Your task to perform on an android device: uninstall "Booking.com: Hotels and more" Image 0: 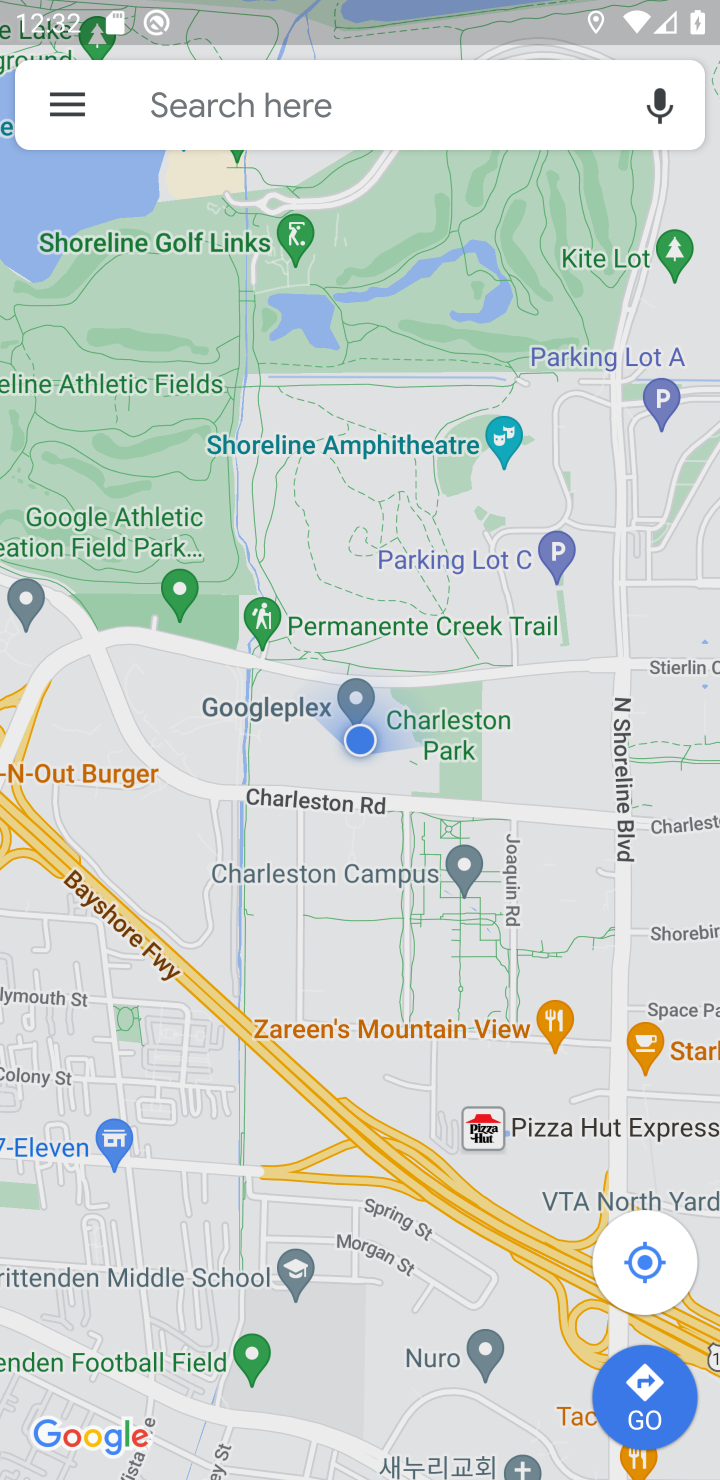
Step 0: press home button
Your task to perform on an android device: uninstall "Booking.com: Hotels and more" Image 1: 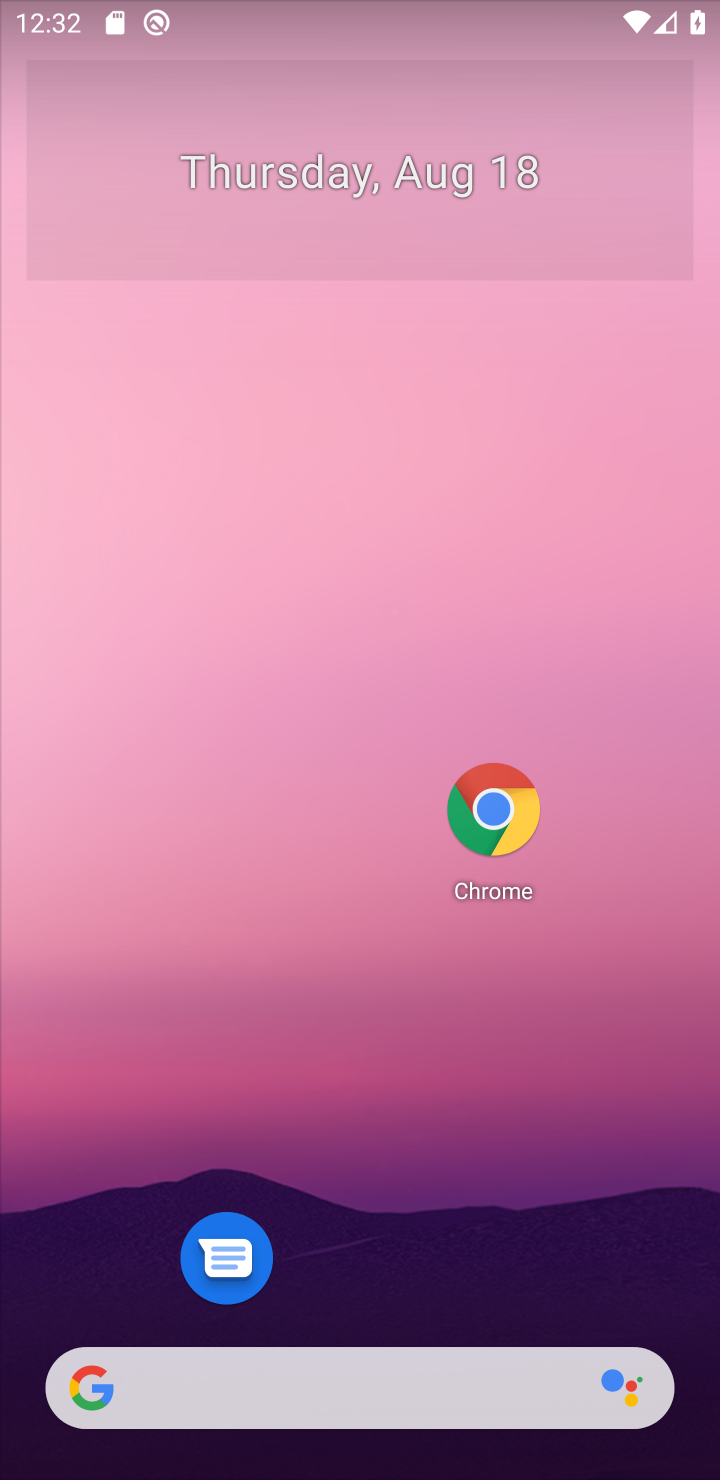
Step 1: drag from (339, 1112) to (399, 416)
Your task to perform on an android device: uninstall "Booking.com: Hotels and more" Image 2: 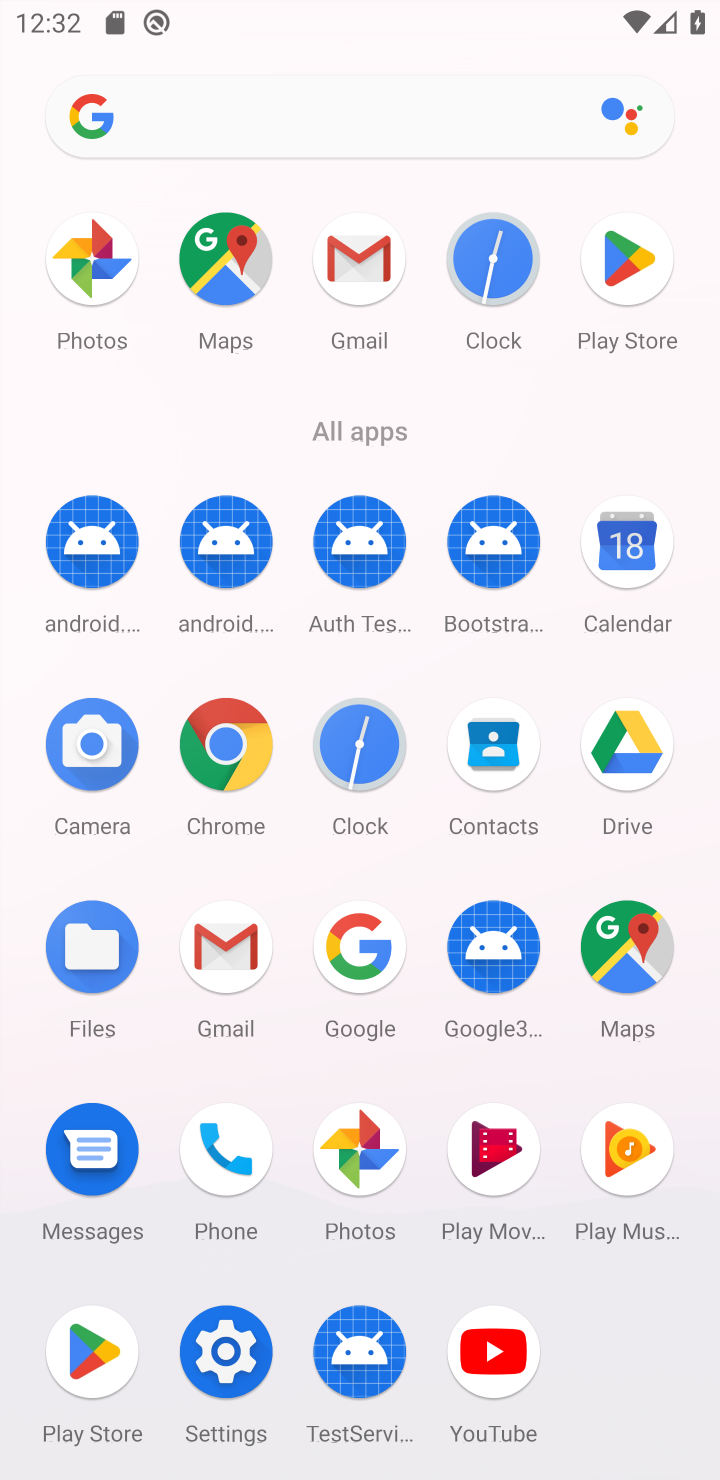
Step 2: click (614, 234)
Your task to perform on an android device: uninstall "Booking.com: Hotels and more" Image 3: 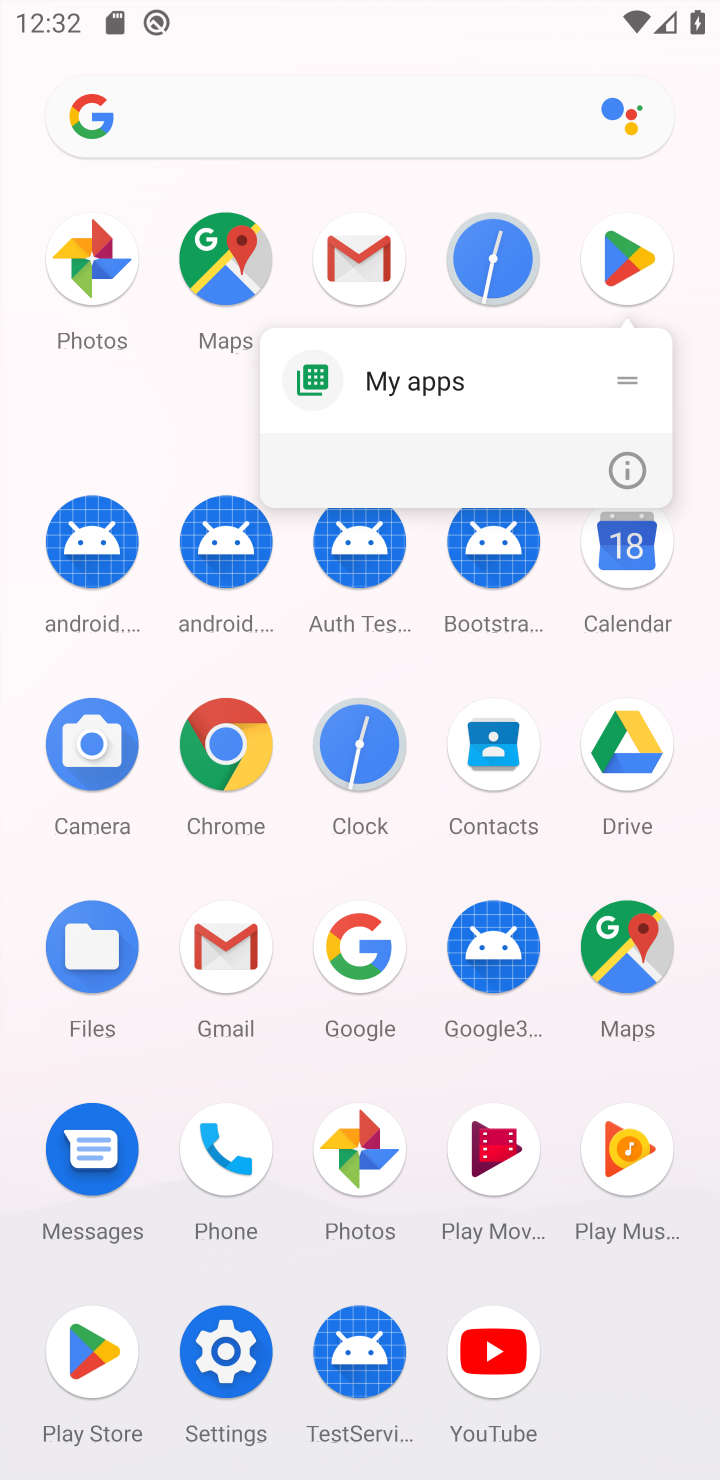
Step 3: click (605, 260)
Your task to perform on an android device: uninstall "Booking.com: Hotels and more" Image 4: 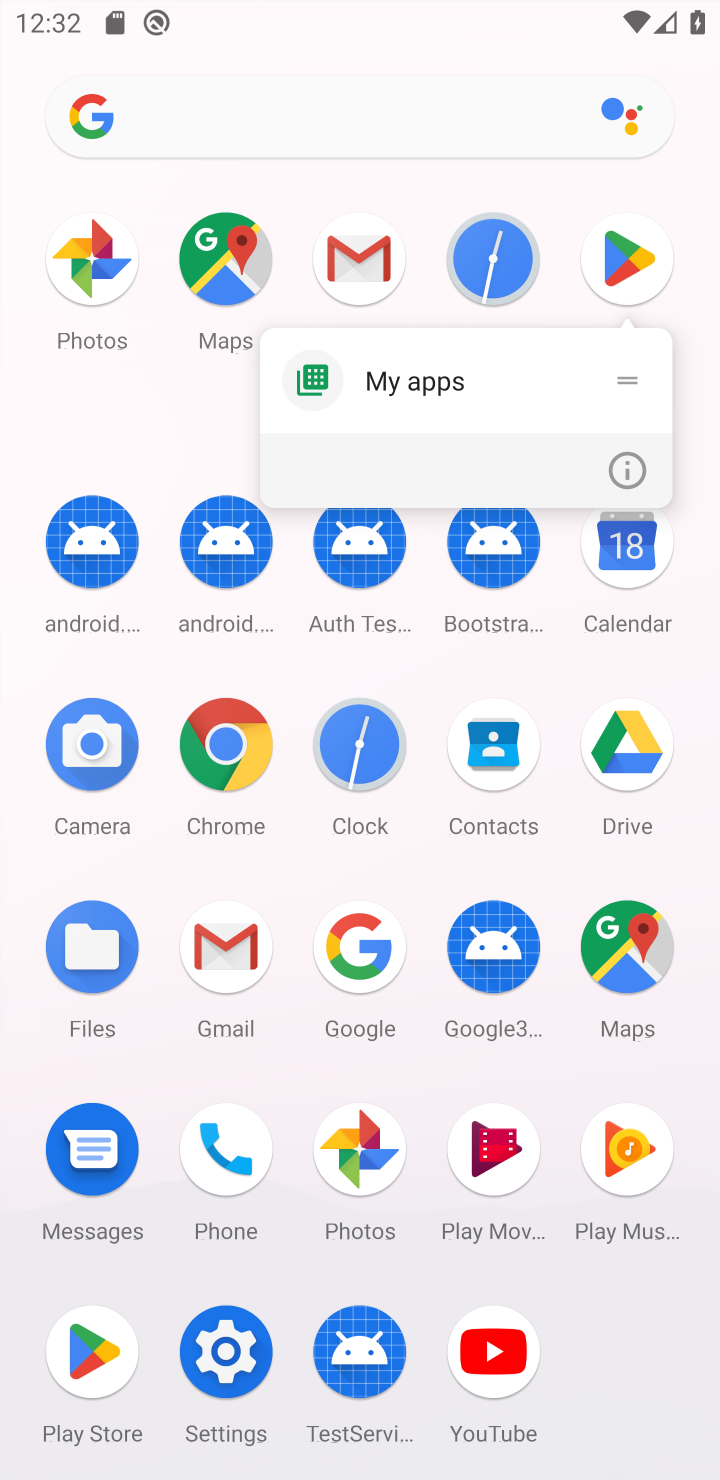
Step 4: click (655, 257)
Your task to perform on an android device: uninstall "Booking.com: Hotels and more" Image 5: 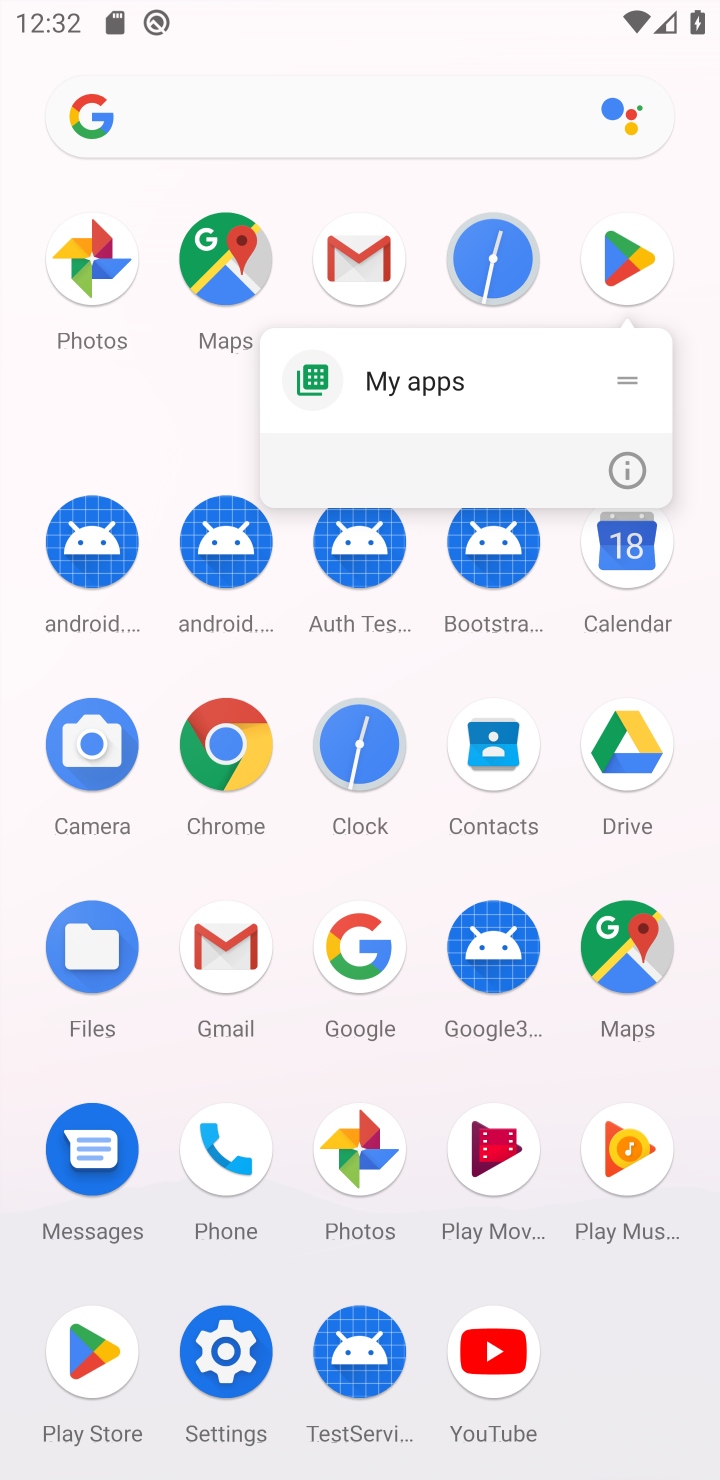
Step 5: click (642, 261)
Your task to perform on an android device: uninstall "Booking.com: Hotels and more" Image 6: 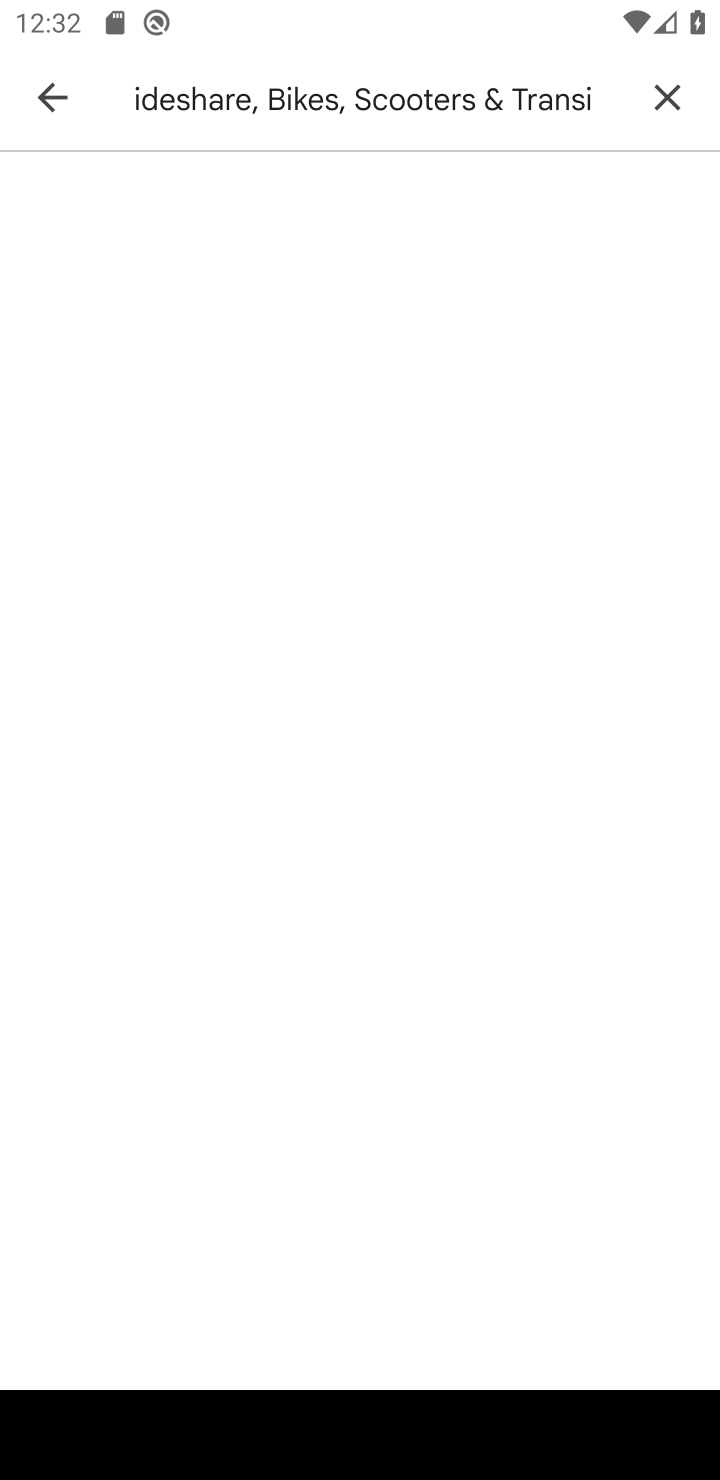
Step 6: click (670, 83)
Your task to perform on an android device: uninstall "Booking.com: Hotels and more" Image 7: 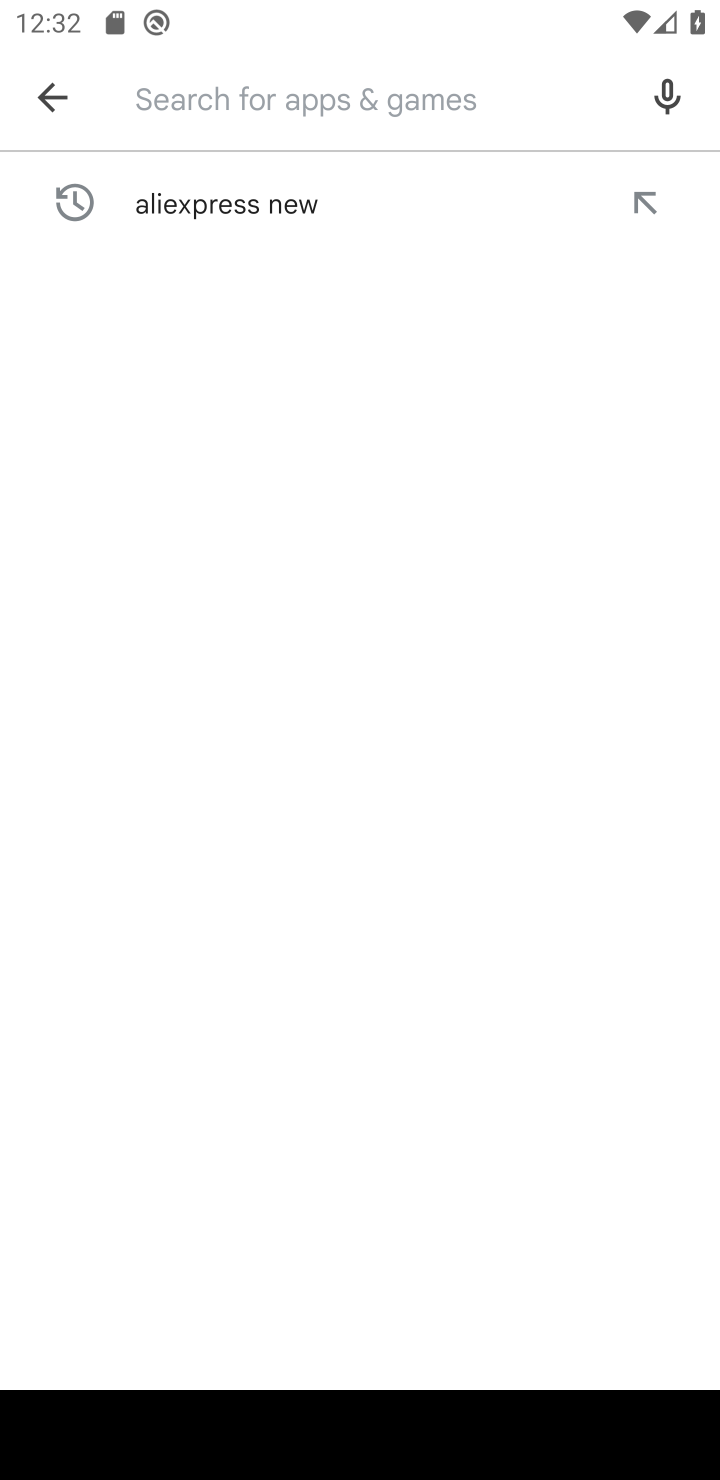
Step 7: click (412, 96)
Your task to perform on an android device: uninstall "Booking.com: Hotels and more" Image 8: 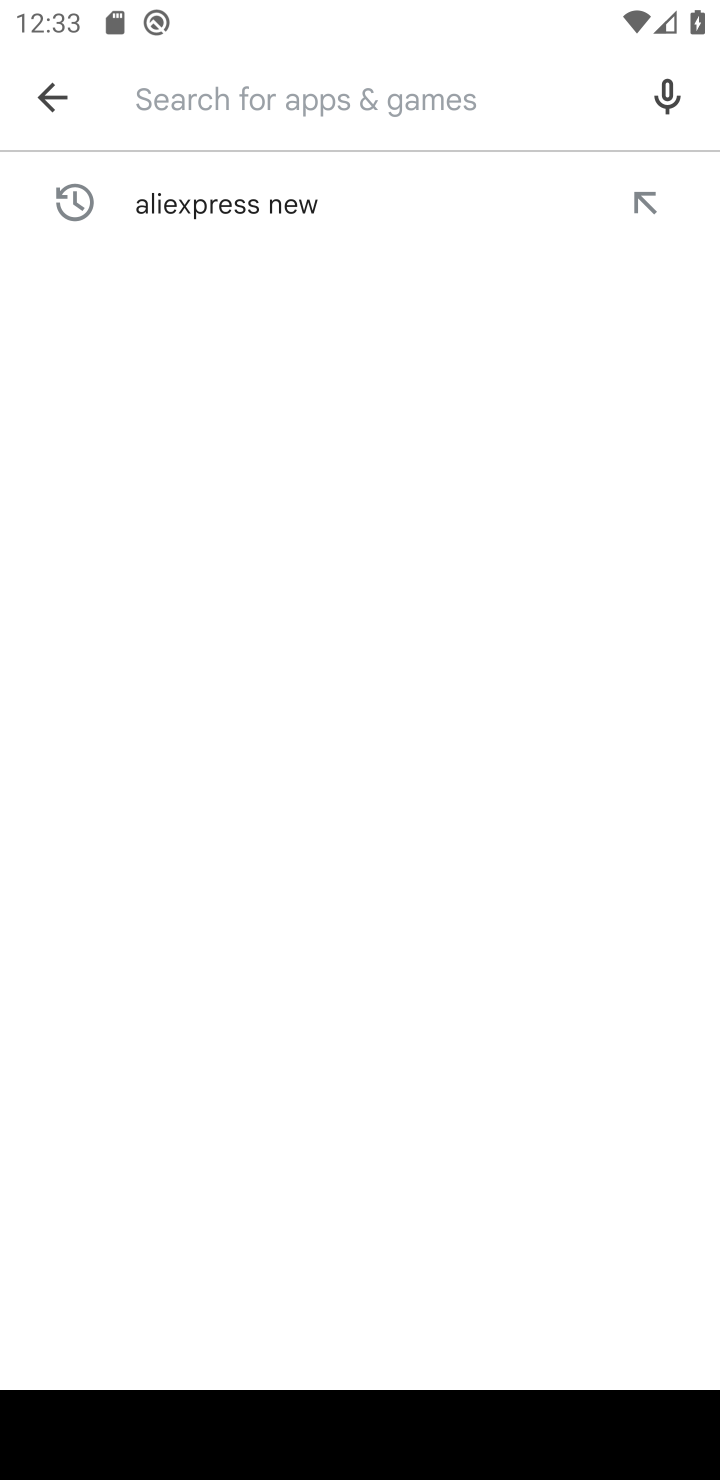
Step 8: type "Booking.com: Hotels and more "
Your task to perform on an android device: uninstall "Booking.com: Hotels and more" Image 9: 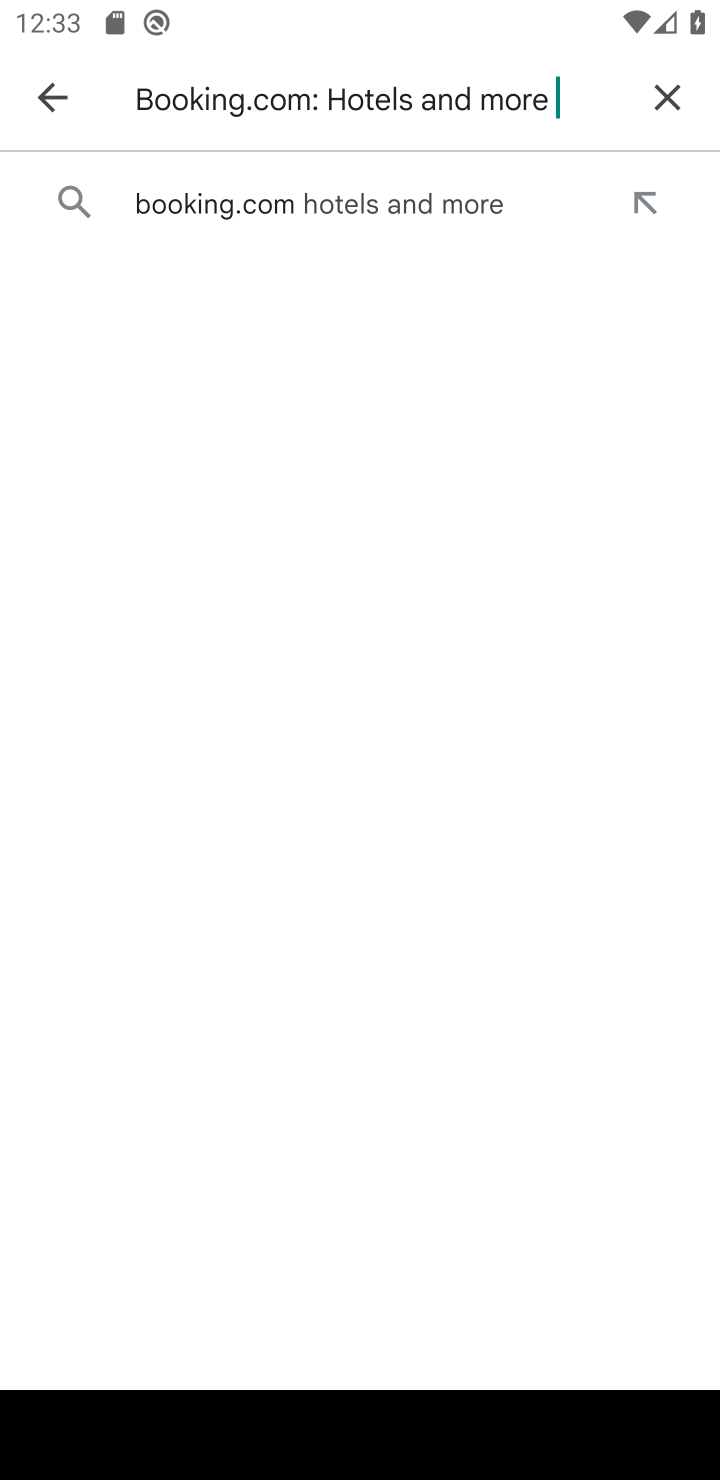
Step 9: click (442, 197)
Your task to perform on an android device: uninstall "Booking.com: Hotels and more" Image 10: 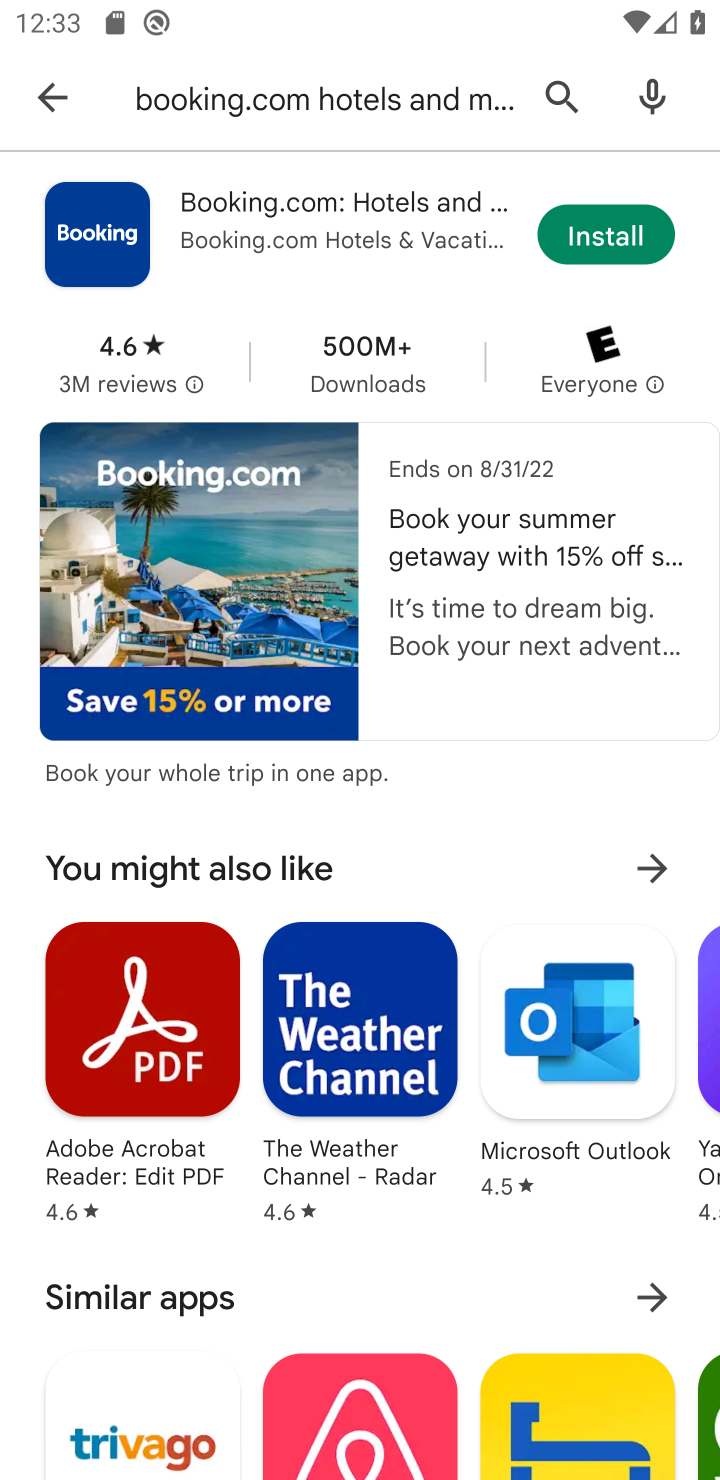
Step 10: task complete